Your task to perform on an android device: Do I have any events tomorrow? Image 0: 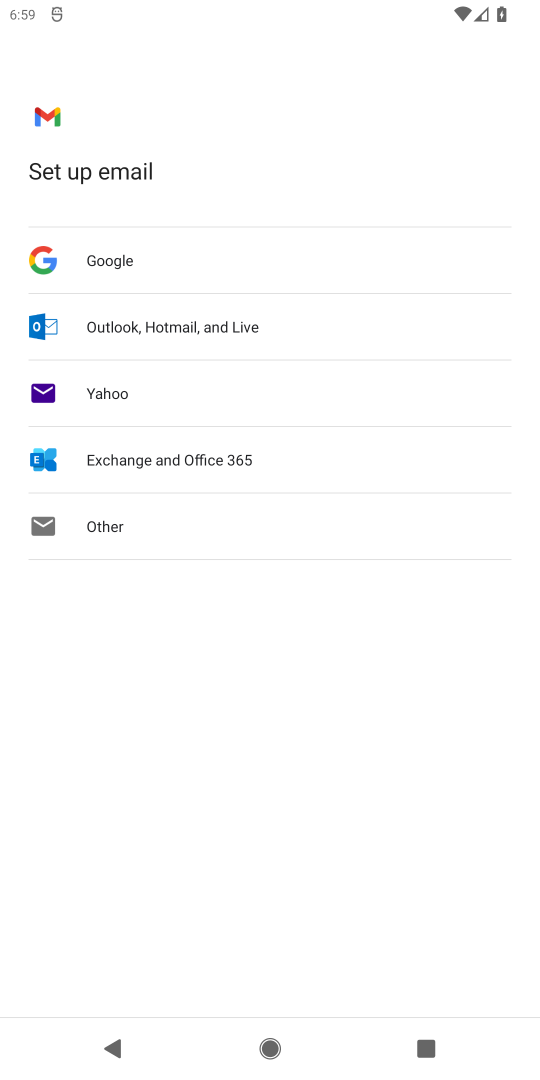
Step 0: press home button
Your task to perform on an android device: Do I have any events tomorrow? Image 1: 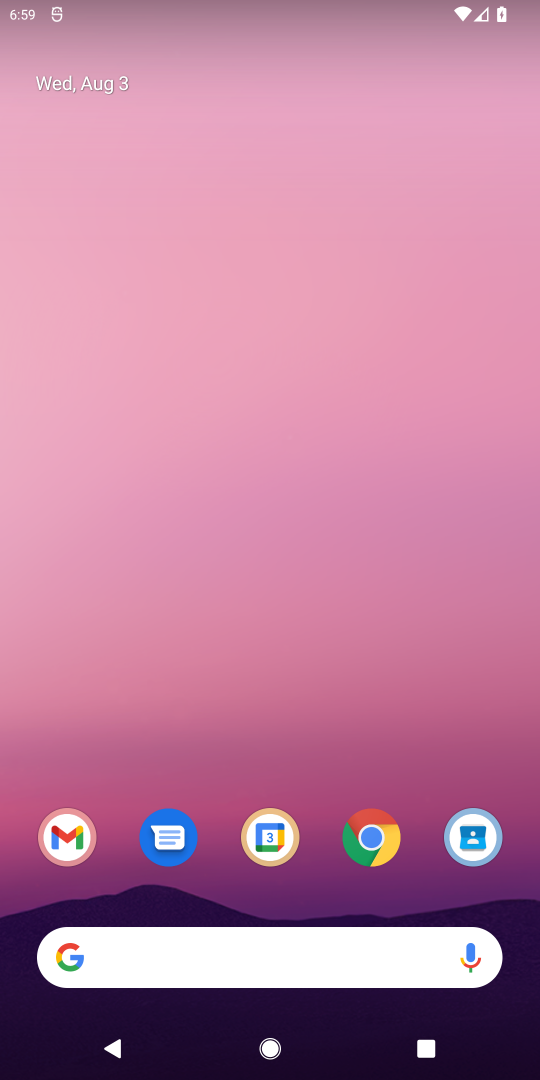
Step 1: drag from (369, 727) to (306, 151)
Your task to perform on an android device: Do I have any events tomorrow? Image 2: 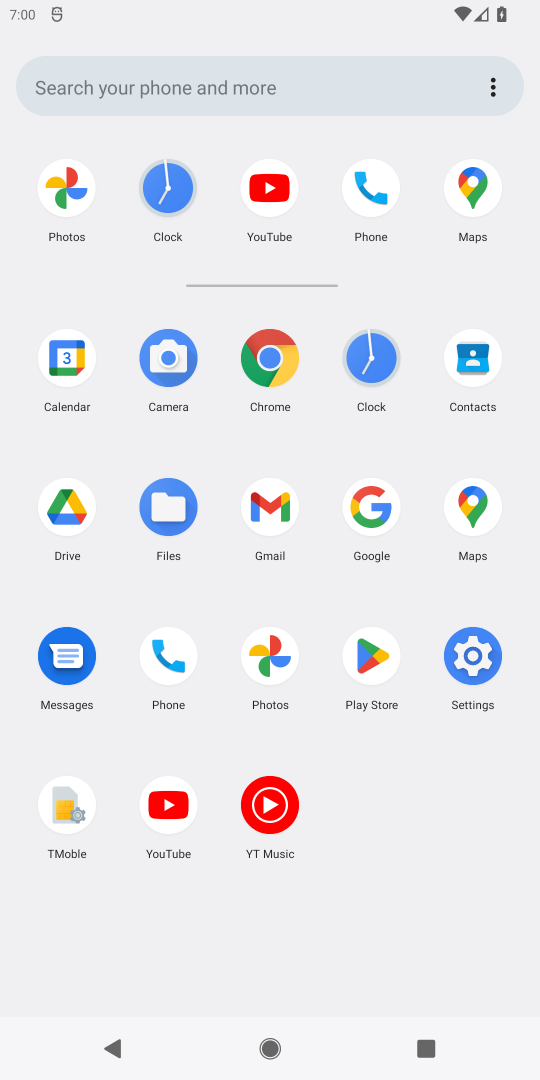
Step 2: click (89, 385)
Your task to perform on an android device: Do I have any events tomorrow? Image 3: 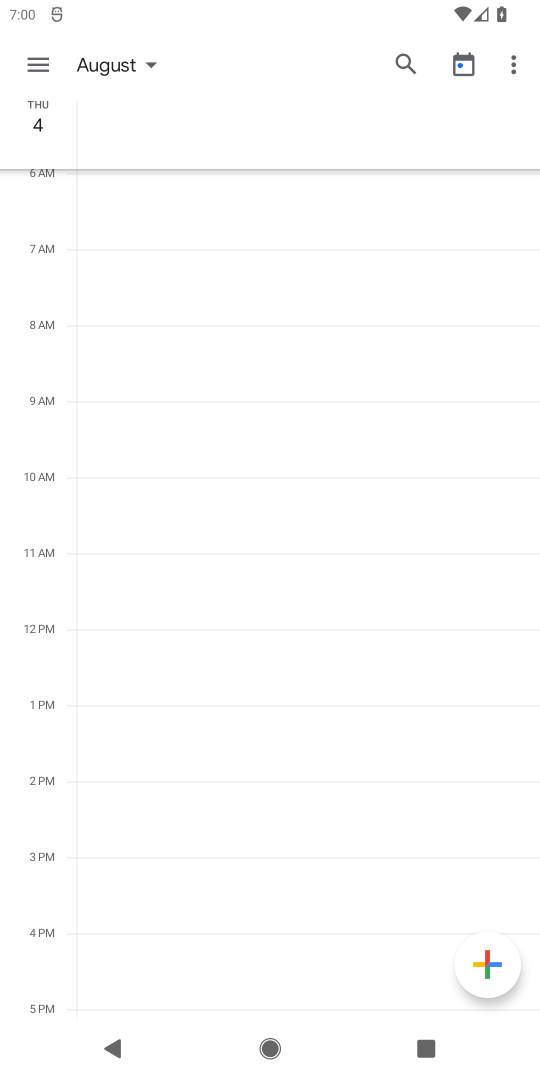
Step 3: click (38, 121)
Your task to perform on an android device: Do I have any events tomorrow? Image 4: 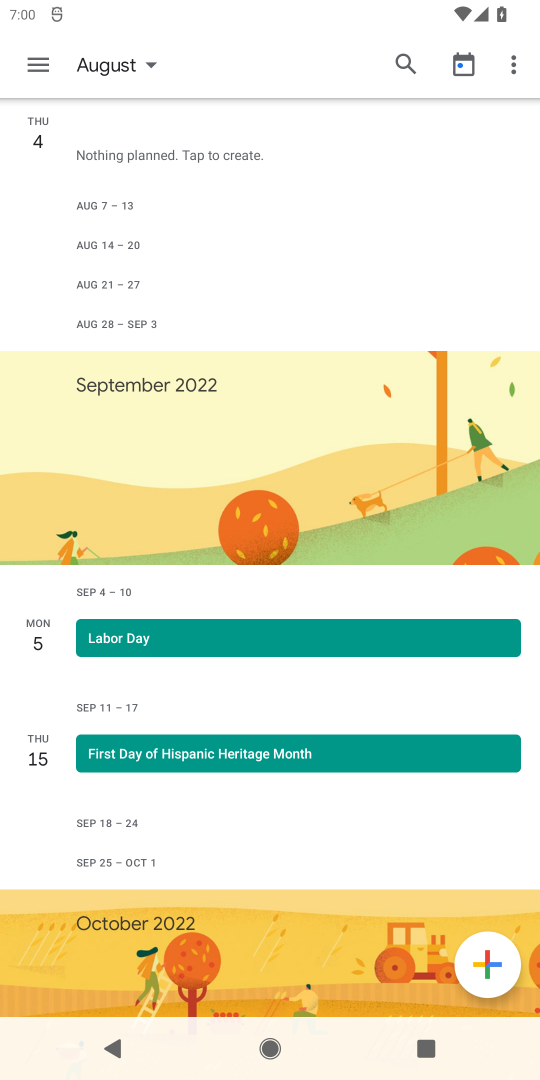
Step 4: task complete